Your task to perform on an android device: add a contact Image 0: 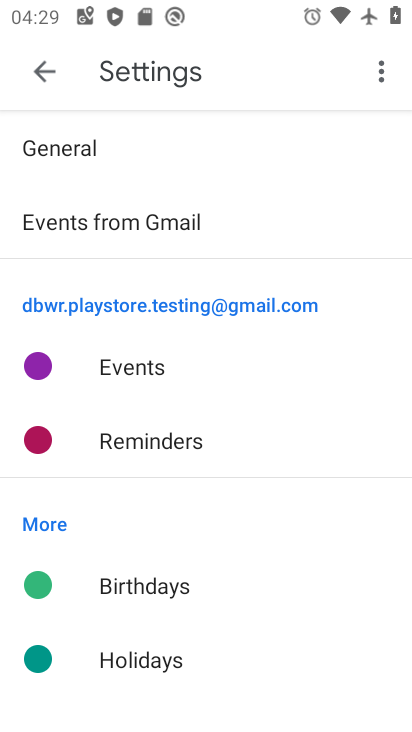
Step 0: press home button
Your task to perform on an android device: add a contact Image 1: 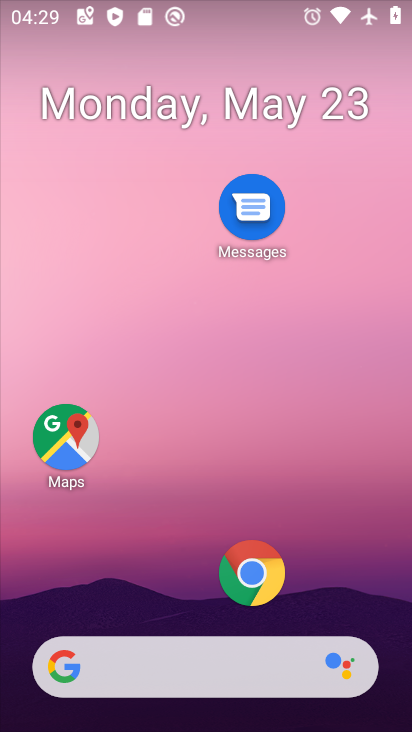
Step 1: drag from (270, 652) to (306, 10)
Your task to perform on an android device: add a contact Image 2: 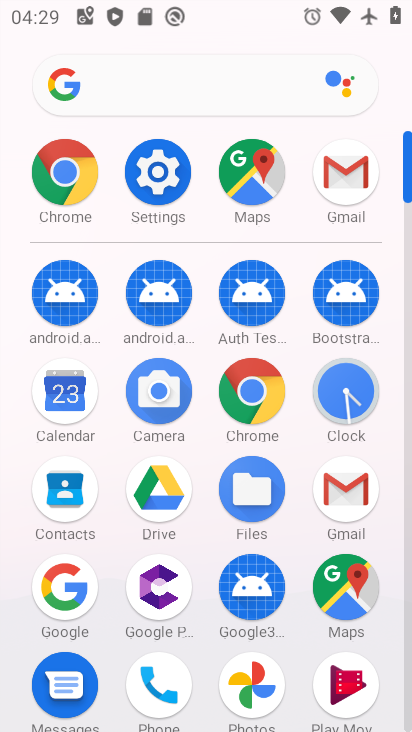
Step 2: click (69, 509)
Your task to perform on an android device: add a contact Image 3: 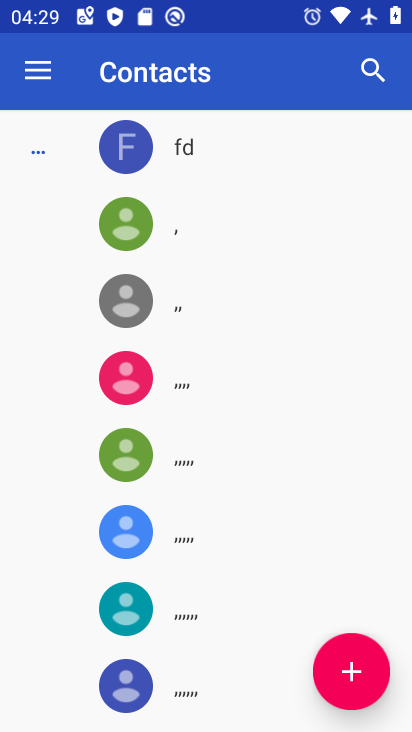
Step 3: click (361, 668)
Your task to perform on an android device: add a contact Image 4: 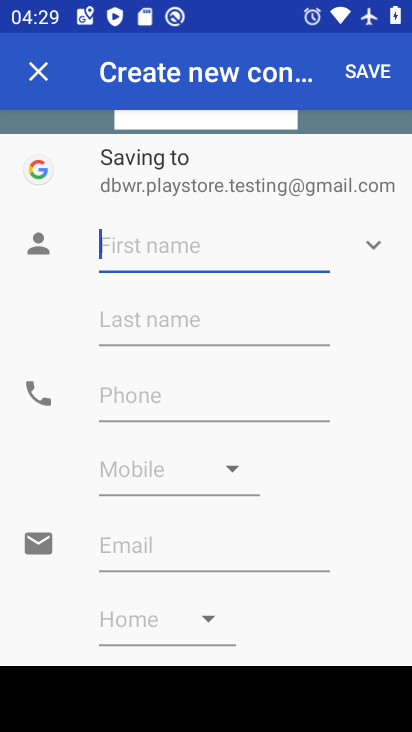
Step 4: type "jdshkjshdfkj"
Your task to perform on an android device: add a contact Image 5: 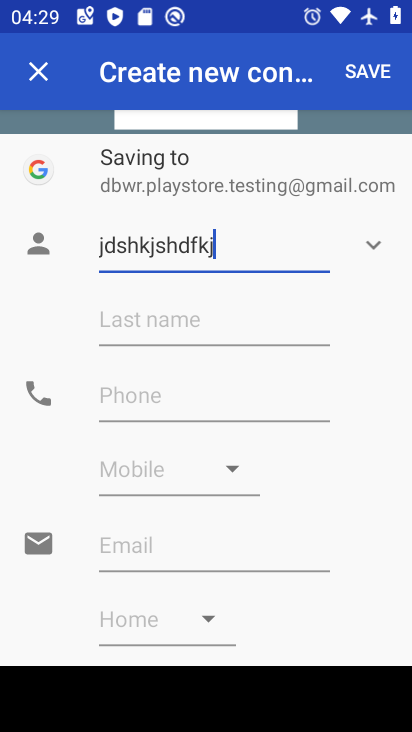
Step 5: click (263, 406)
Your task to perform on an android device: add a contact Image 6: 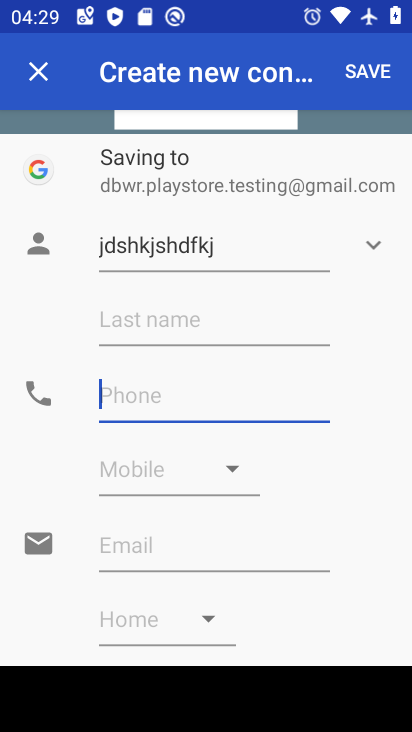
Step 6: type "9897666788"
Your task to perform on an android device: add a contact Image 7: 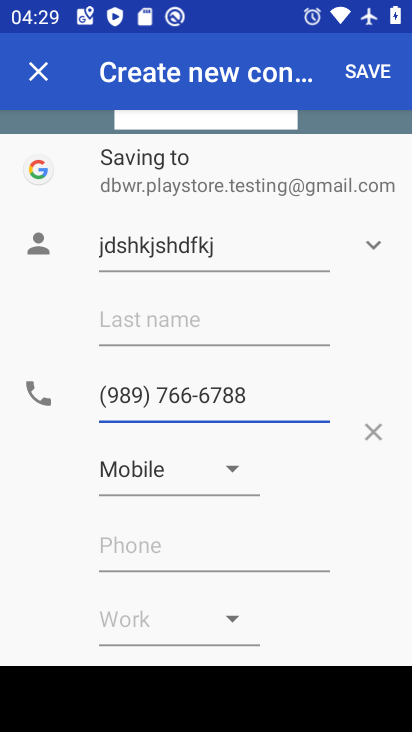
Step 7: click (361, 76)
Your task to perform on an android device: add a contact Image 8: 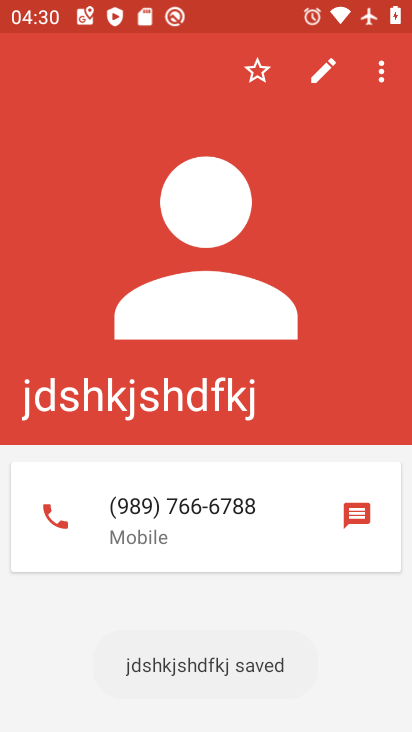
Step 8: task complete